Your task to perform on an android device: Open Yahoo.com Image 0: 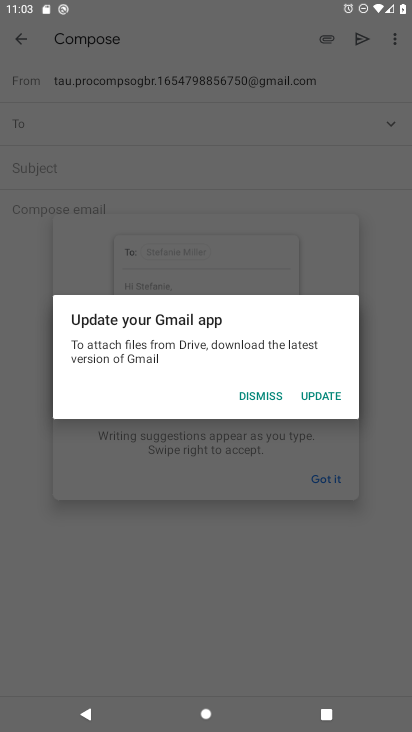
Step 0: press home button
Your task to perform on an android device: Open Yahoo.com Image 1: 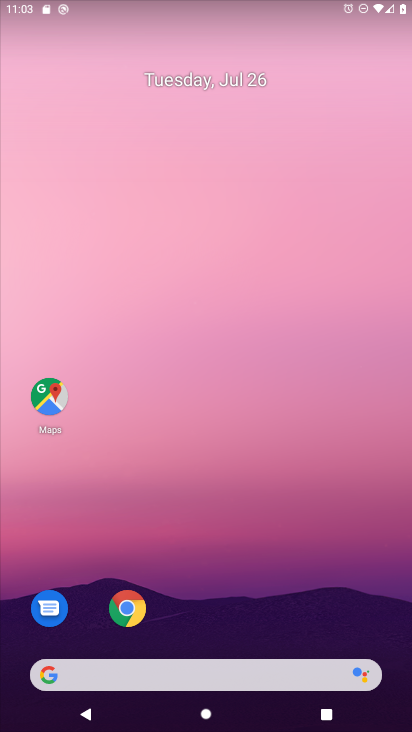
Step 1: drag from (291, 574) to (308, 120)
Your task to perform on an android device: Open Yahoo.com Image 2: 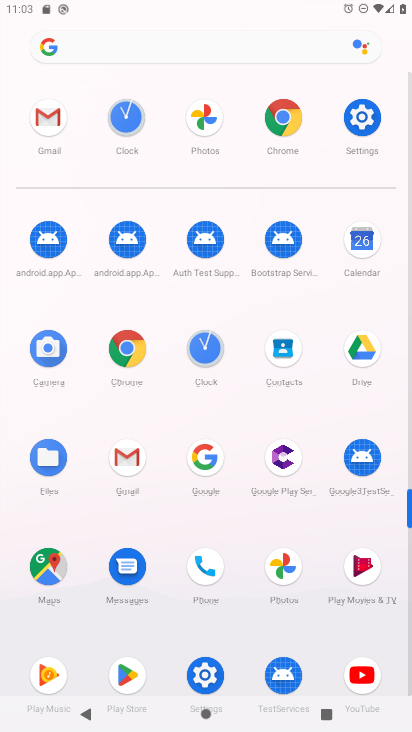
Step 2: click (282, 121)
Your task to perform on an android device: Open Yahoo.com Image 3: 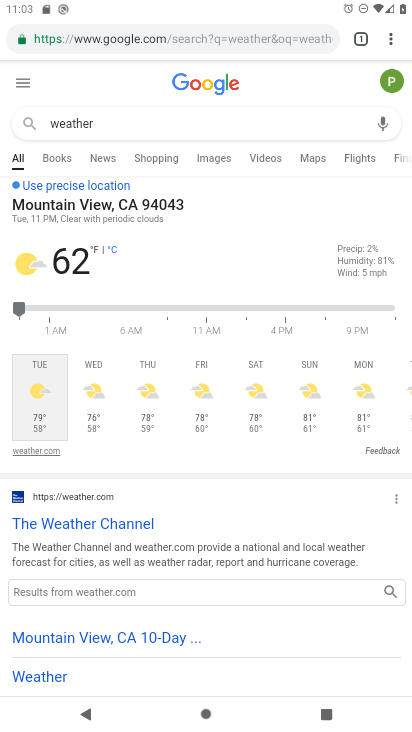
Step 3: click (258, 35)
Your task to perform on an android device: Open Yahoo.com Image 4: 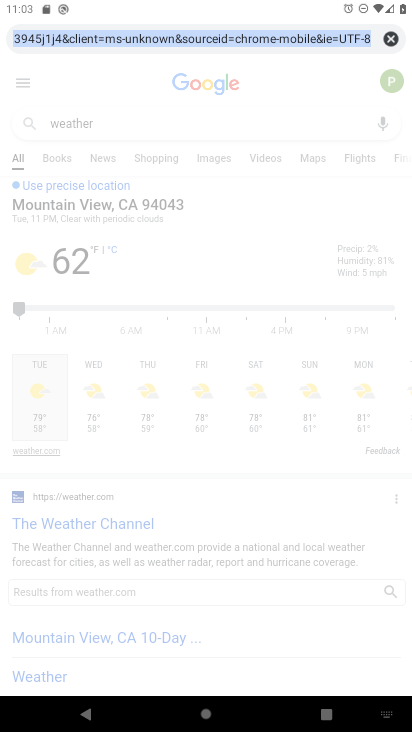
Step 4: type "yahoo.com"
Your task to perform on an android device: Open Yahoo.com Image 5: 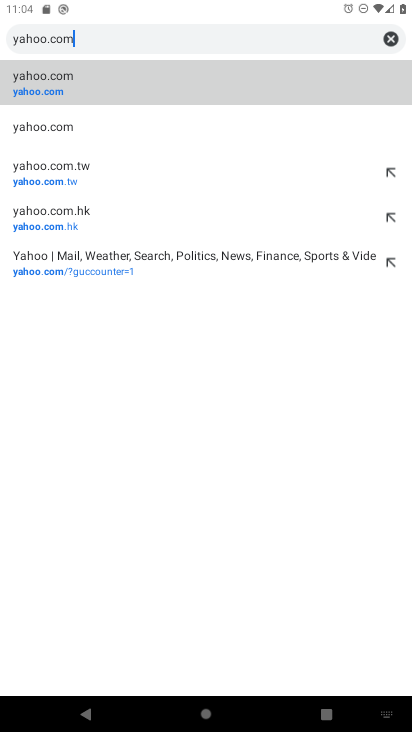
Step 5: click (36, 87)
Your task to perform on an android device: Open Yahoo.com Image 6: 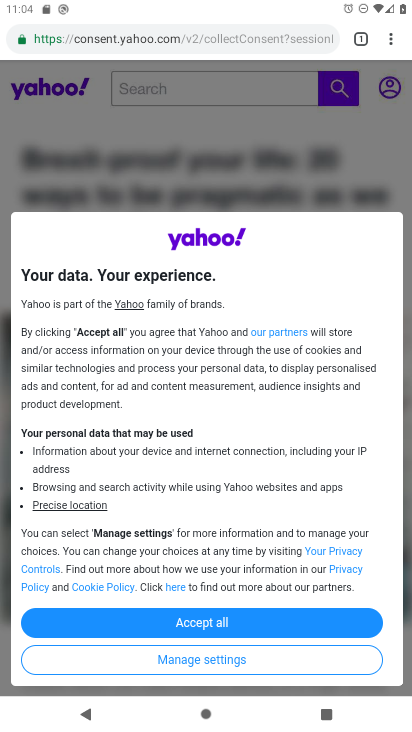
Step 6: task complete